Your task to perform on an android device: Go to Maps Image 0: 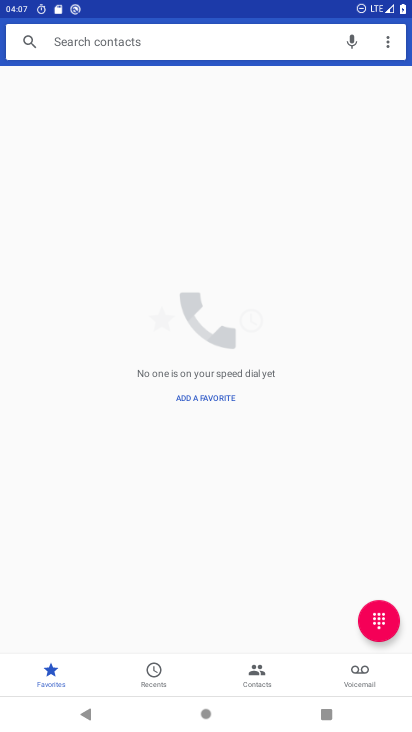
Step 0: press home button
Your task to perform on an android device: Go to Maps Image 1: 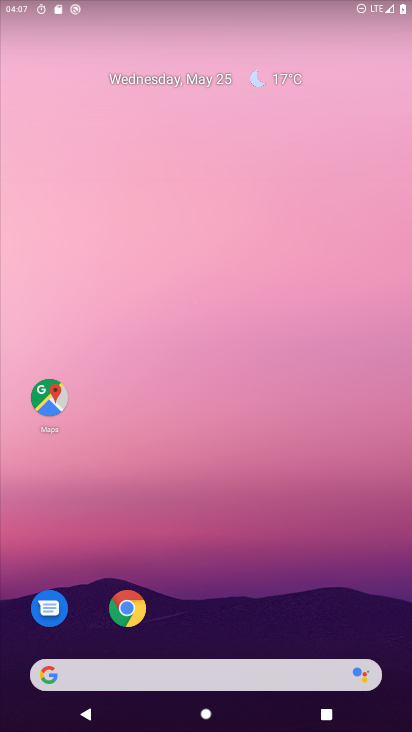
Step 1: click (32, 398)
Your task to perform on an android device: Go to Maps Image 2: 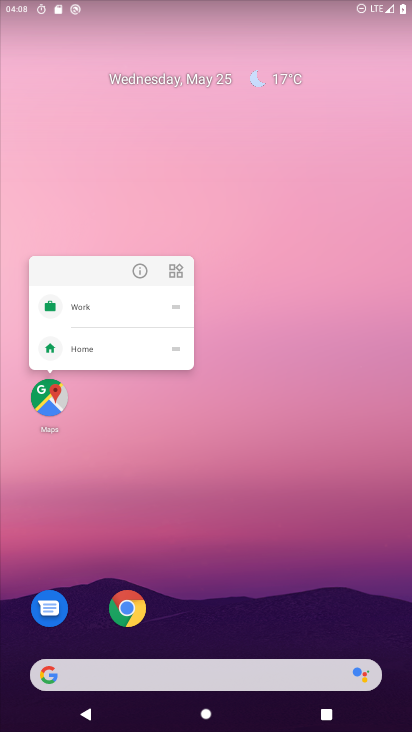
Step 2: click (34, 399)
Your task to perform on an android device: Go to Maps Image 3: 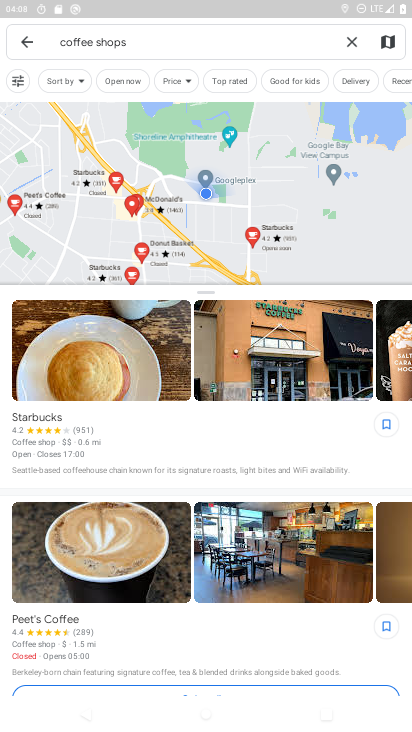
Step 3: task complete